Your task to perform on an android device: check battery use Image 0: 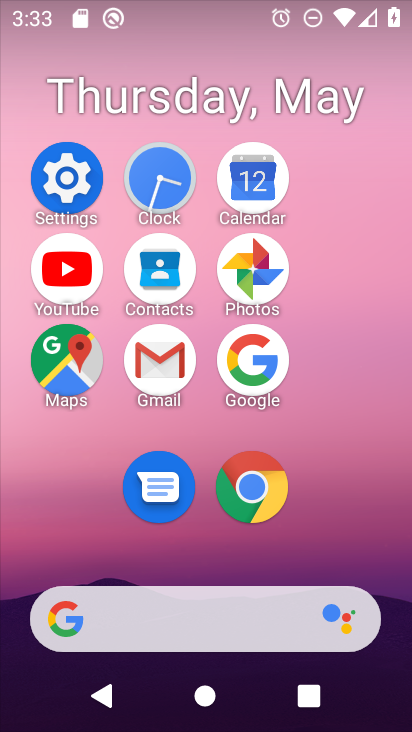
Step 0: click (48, 166)
Your task to perform on an android device: check battery use Image 1: 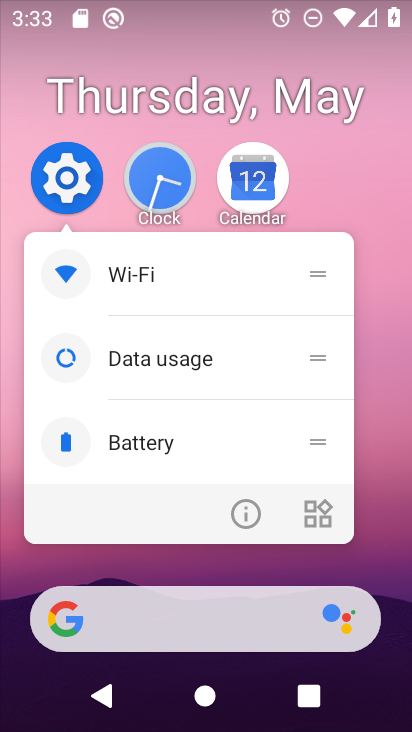
Step 1: click (48, 166)
Your task to perform on an android device: check battery use Image 2: 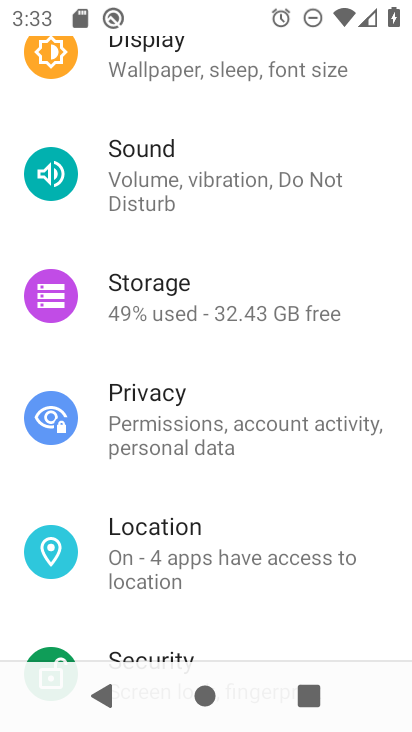
Step 2: drag from (259, 109) to (298, 562)
Your task to perform on an android device: check battery use Image 3: 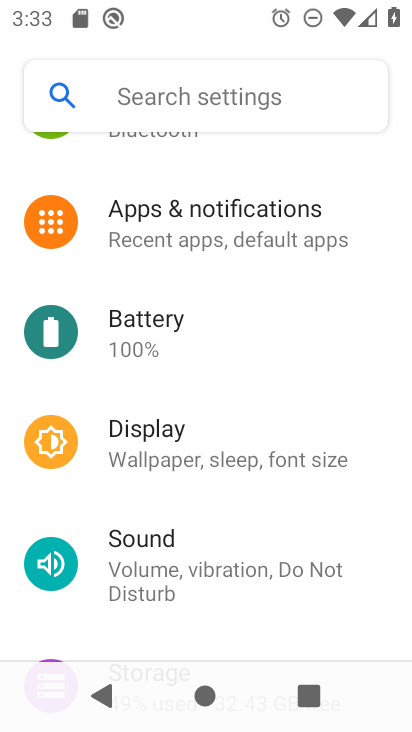
Step 3: click (241, 327)
Your task to perform on an android device: check battery use Image 4: 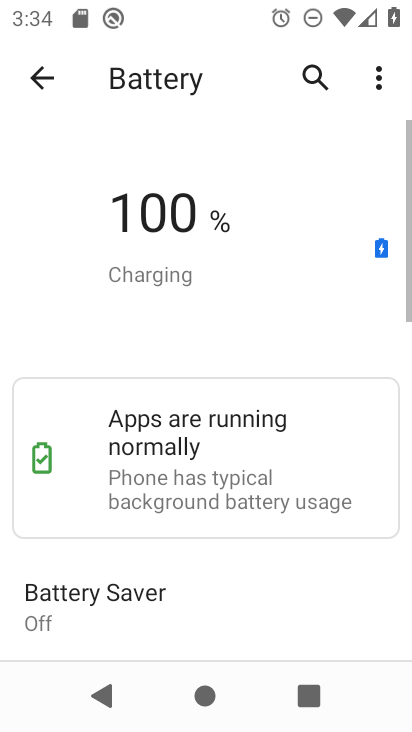
Step 4: click (384, 83)
Your task to perform on an android device: check battery use Image 5: 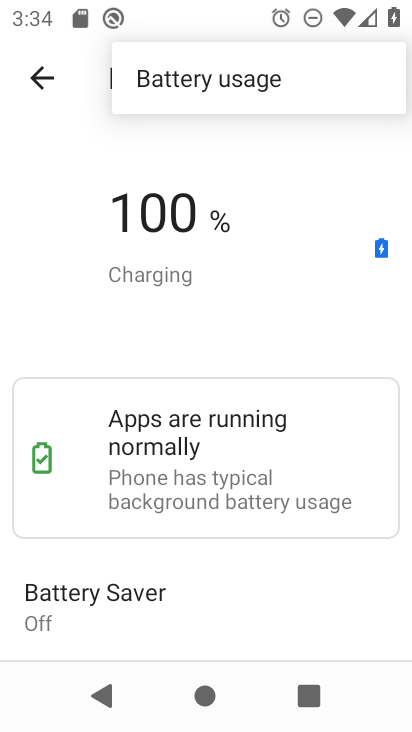
Step 5: click (243, 65)
Your task to perform on an android device: check battery use Image 6: 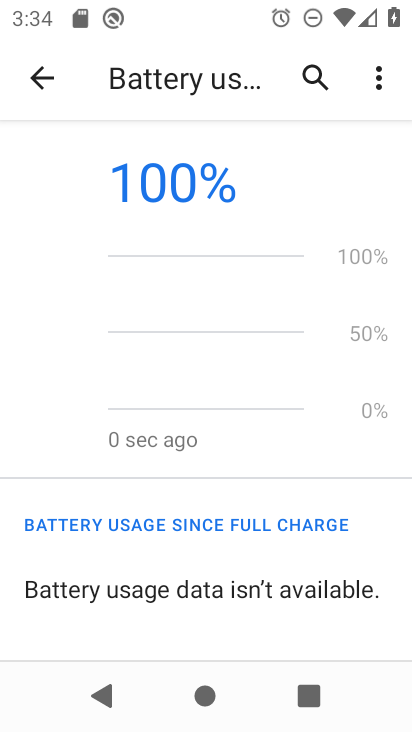
Step 6: task complete